Your task to perform on an android device: Do I have any events this weekend? Image 0: 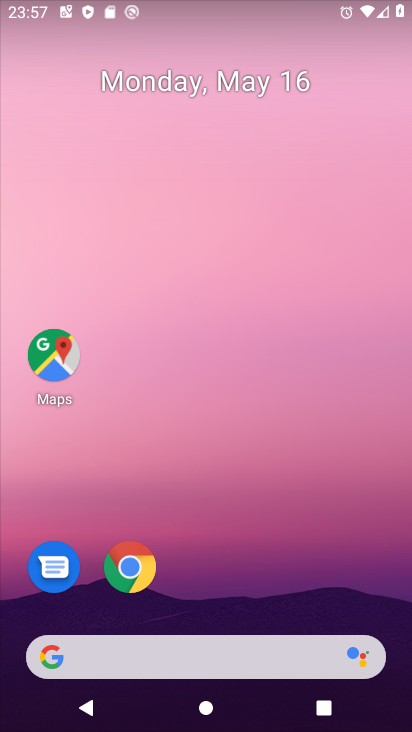
Step 0: drag from (275, 562) to (208, 157)
Your task to perform on an android device: Do I have any events this weekend? Image 1: 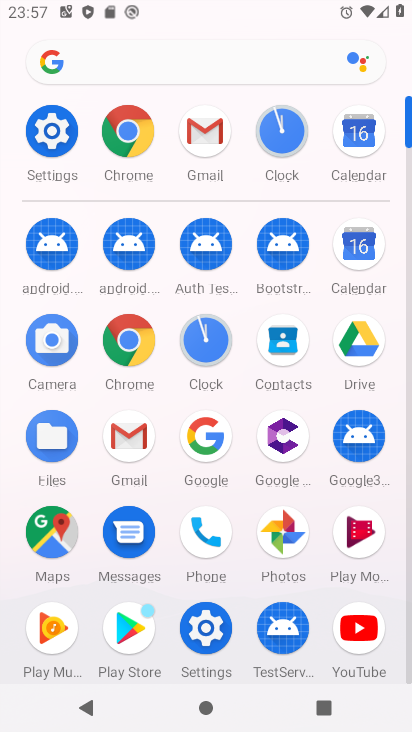
Step 1: click (355, 240)
Your task to perform on an android device: Do I have any events this weekend? Image 2: 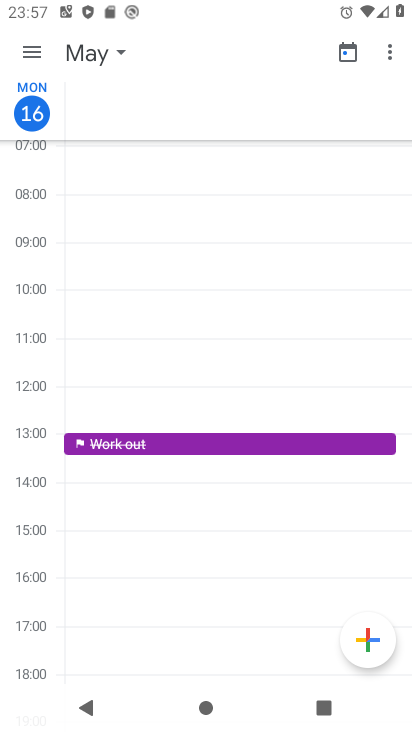
Step 2: click (29, 50)
Your task to perform on an android device: Do I have any events this weekend? Image 3: 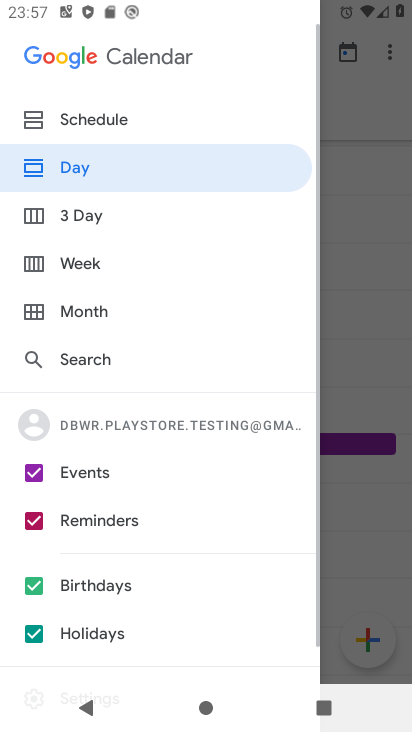
Step 3: click (75, 254)
Your task to perform on an android device: Do I have any events this weekend? Image 4: 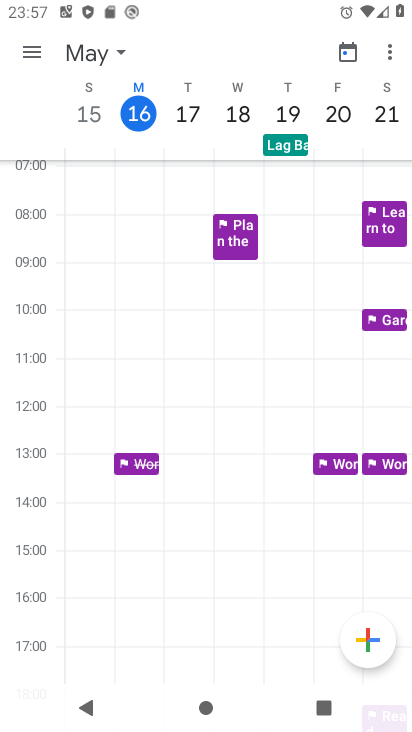
Step 4: task complete